Your task to perform on an android device: check storage Image 0: 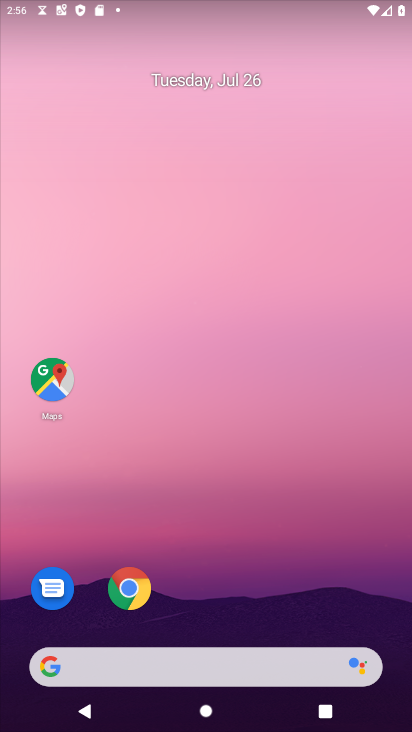
Step 0: drag from (219, 601) to (218, 77)
Your task to perform on an android device: check storage Image 1: 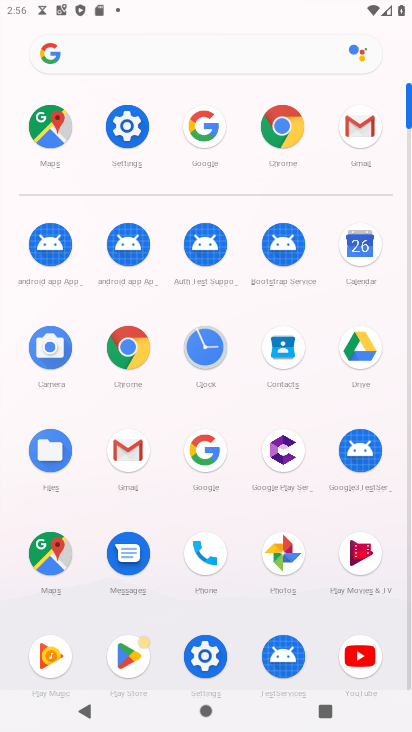
Step 1: click (212, 647)
Your task to perform on an android device: check storage Image 2: 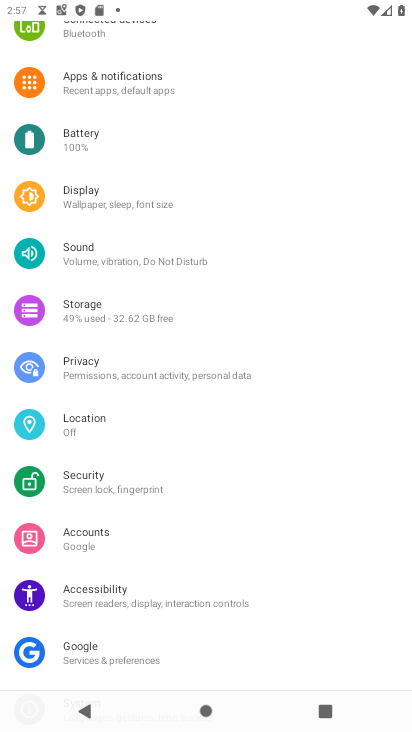
Step 2: click (117, 313)
Your task to perform on an android device: check storage Image 3: 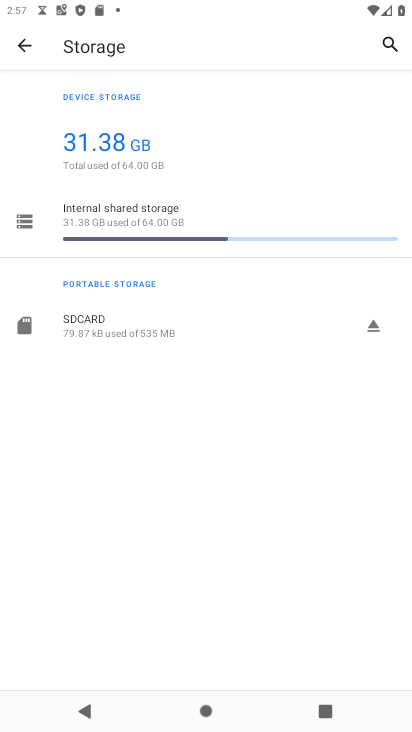
Step 3: click (79, 216)
Your task to perform on an android device: check storage Image 4: 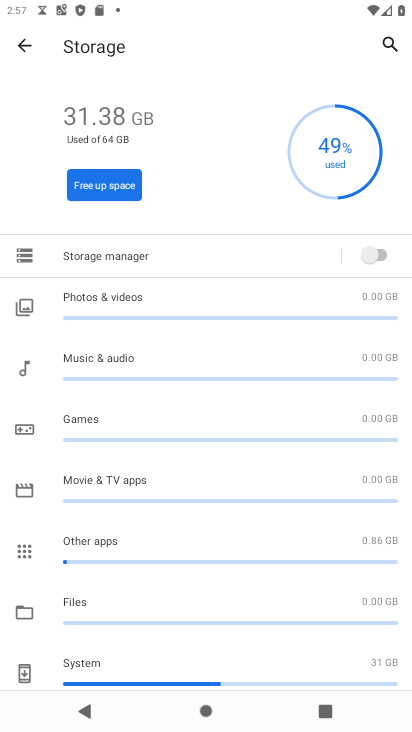
Step 4: task complete